Your task to perform on an android device: Open location settings Image 0: 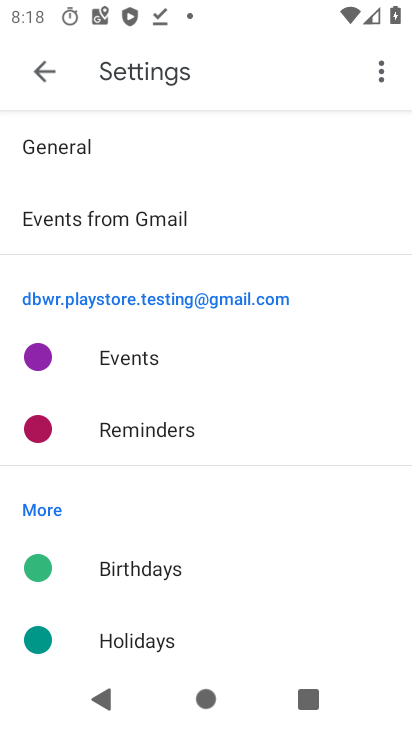
Step 0: press home button
Your task to perform on an android device: Open location settings Image 1: 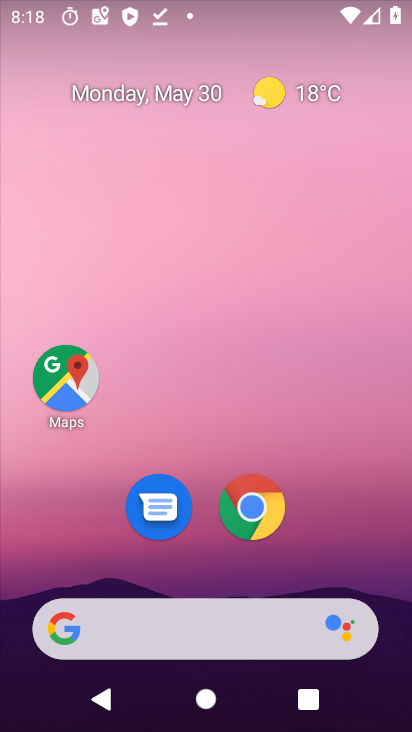
Step 1: drag from (338, 570) to (334, 174)
Your task to perform on an android device: Open location settings Image 2: 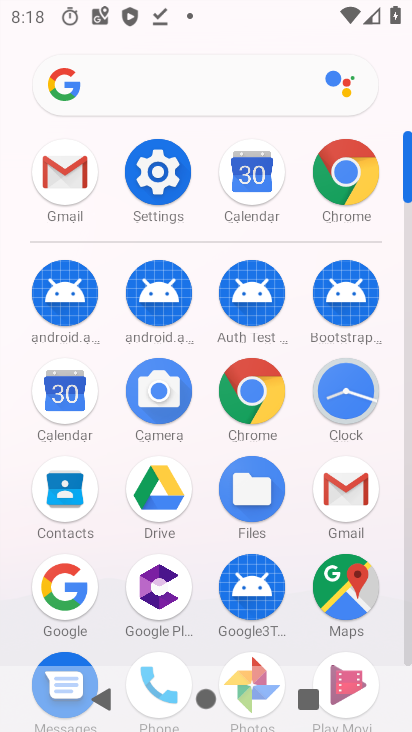
Step 2: click (156, 202)
Your task to perform on an android device: Open location settings Image 3: 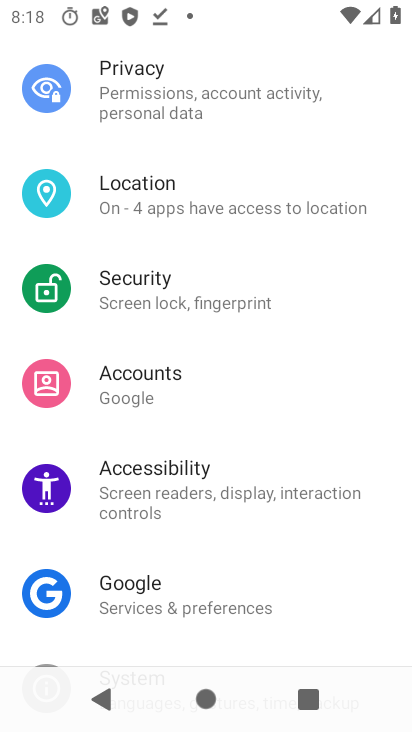
Step 3: click (154, 190)
Your task to perform on an android device: Open location settings Image 4: 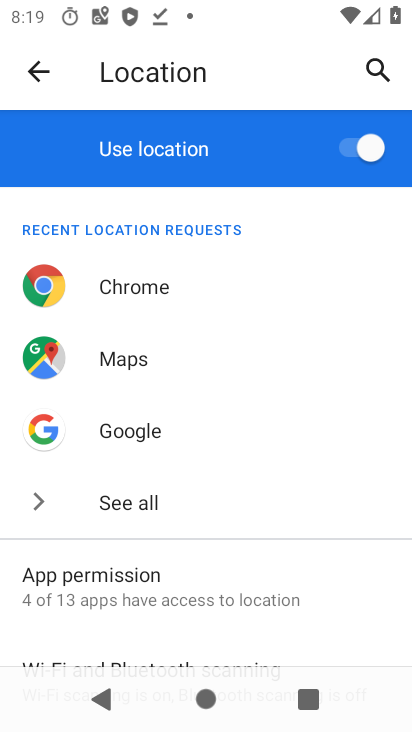
Step 4: task complete